Your task to perform on an android device: see tabs open on other devices in the chrome app Image 0: 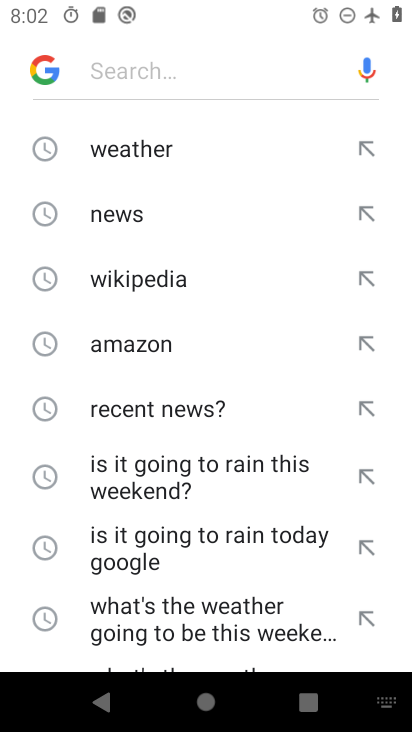
Step 0: press home button
Your task to perform on an android device: see tabs open on other devices in the chrome app Image 1: 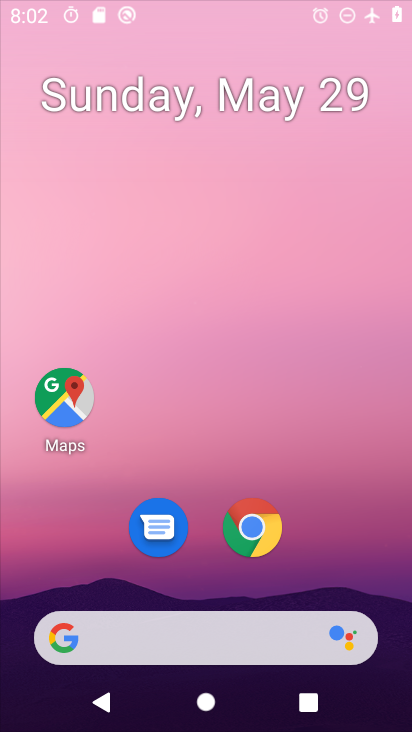
Step 1: drag from (348, 643) to (302, 64)
Your task to perform on an android device: see tabs open on other devices in the chrome app Image 2: 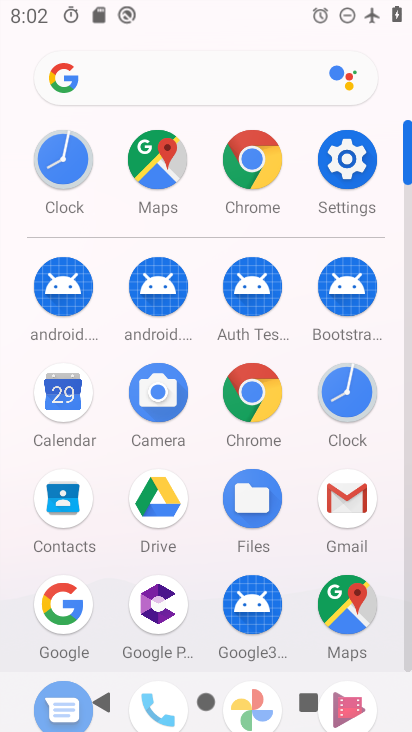
Step 2: click (255, 161)
Your task to perform on an android device: see tabs open on other devices in the chrome app Image 3: 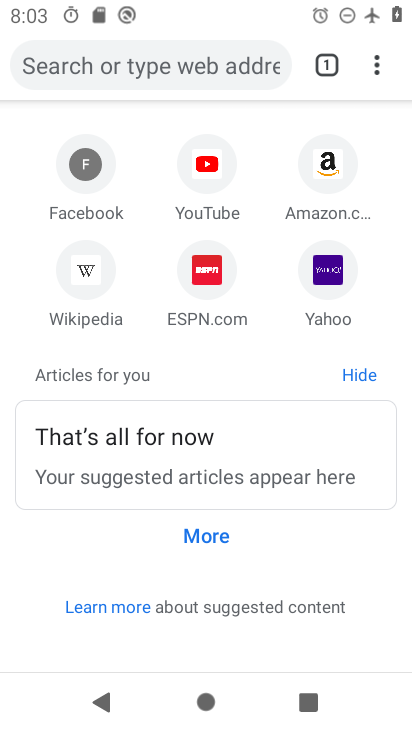
Step 3: task complete